Your task to perform on an android device: Empty the shopping cart on target. Add rayovac triple a to the cart on target Image 0: 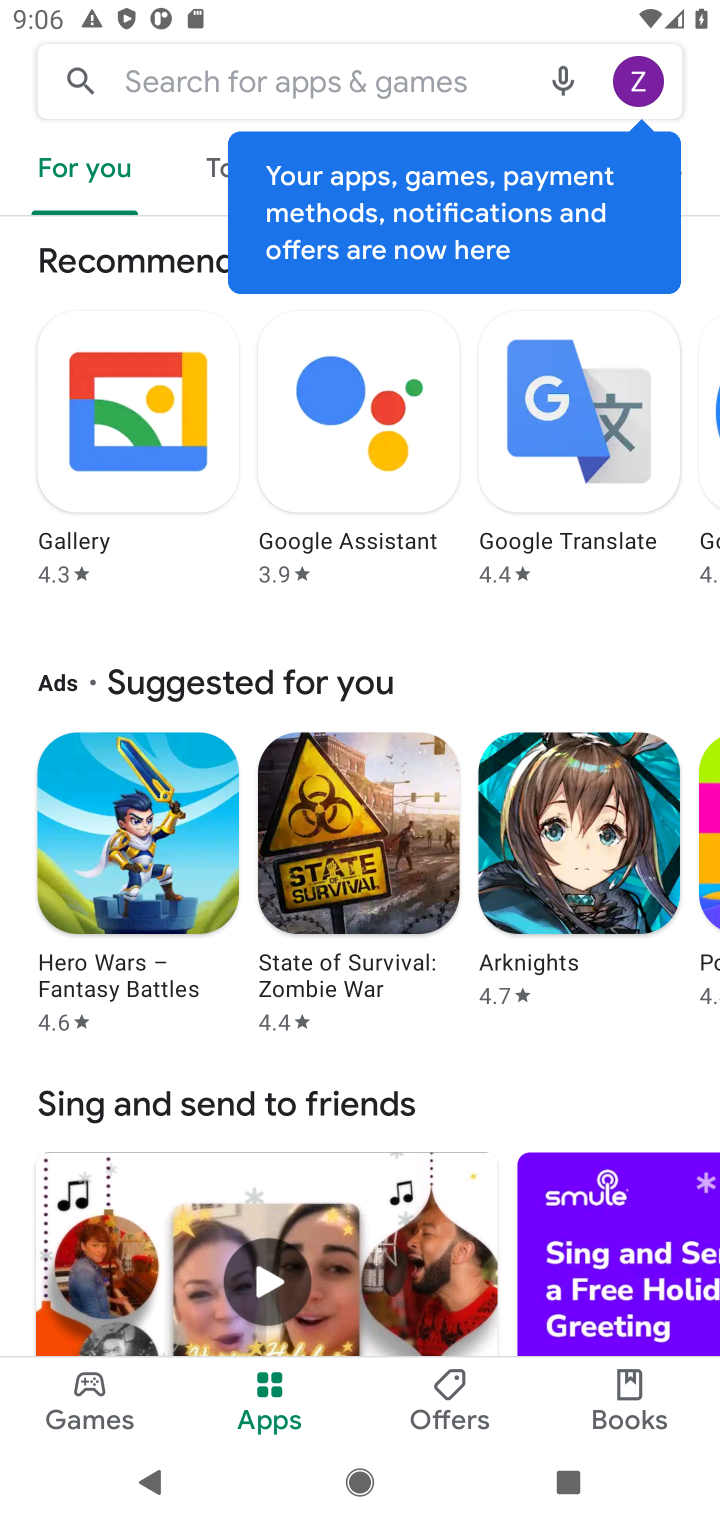
Step 0: press home button
Your task to perform on an android device: Empty the shopping cart on target. Add rayovac triple a to the cart on target Image 1: 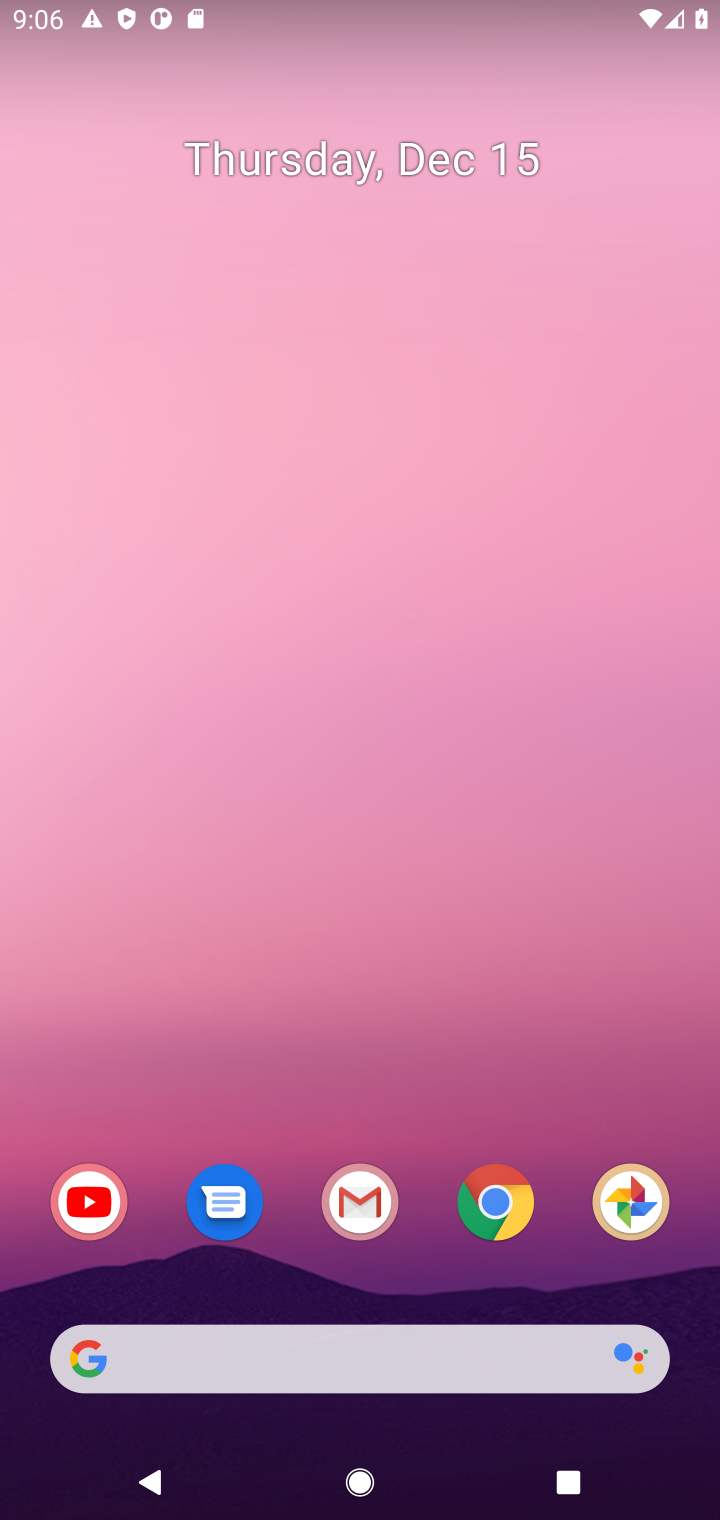
Step 1: click (487, 1205)
Your task to perform on an android device: Empty the shopping cart on target. Add rayovac triple a to the cart on target Image 2: 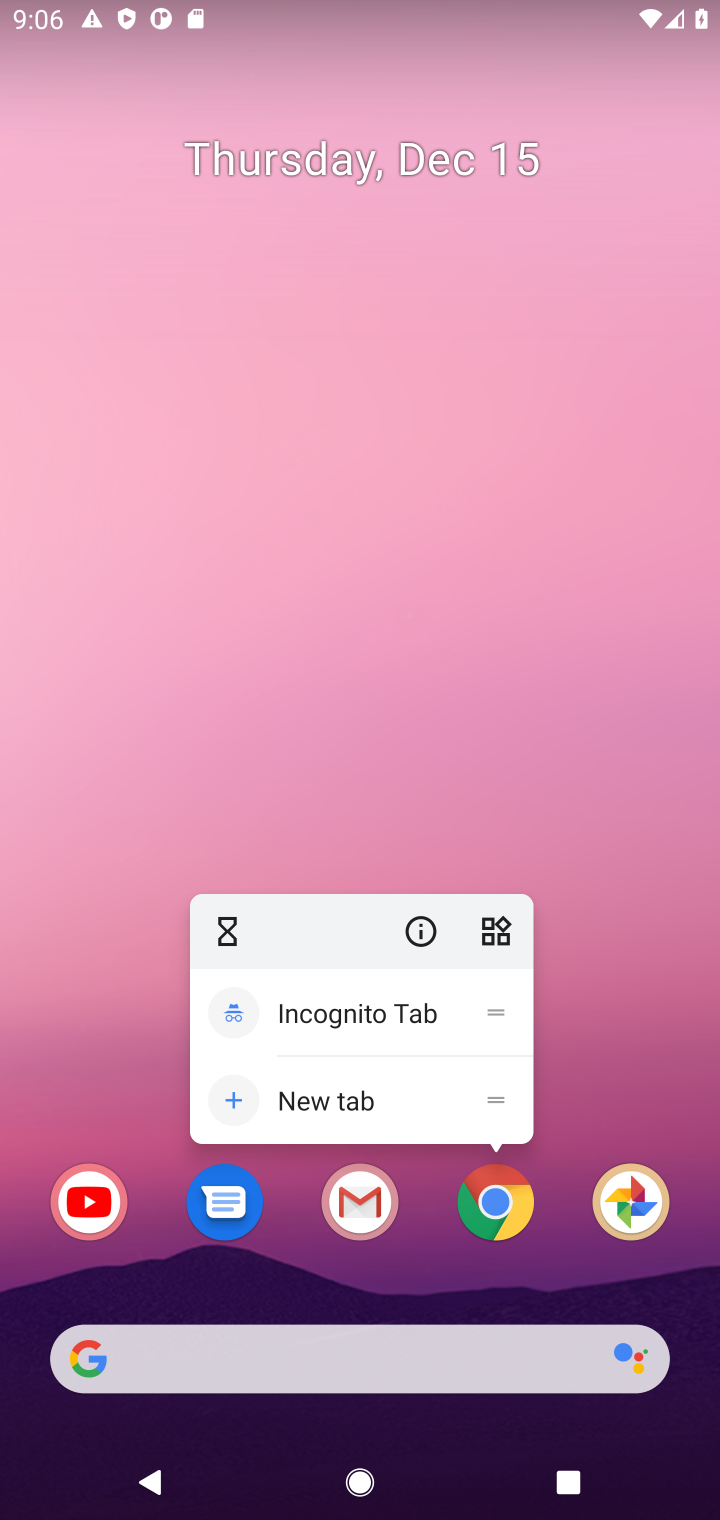
Step 2: click (498, 1205)
Your task to perform on an android device: Empty the shopping cart on target. Add rayovac triple a to the cart on target Image 3: 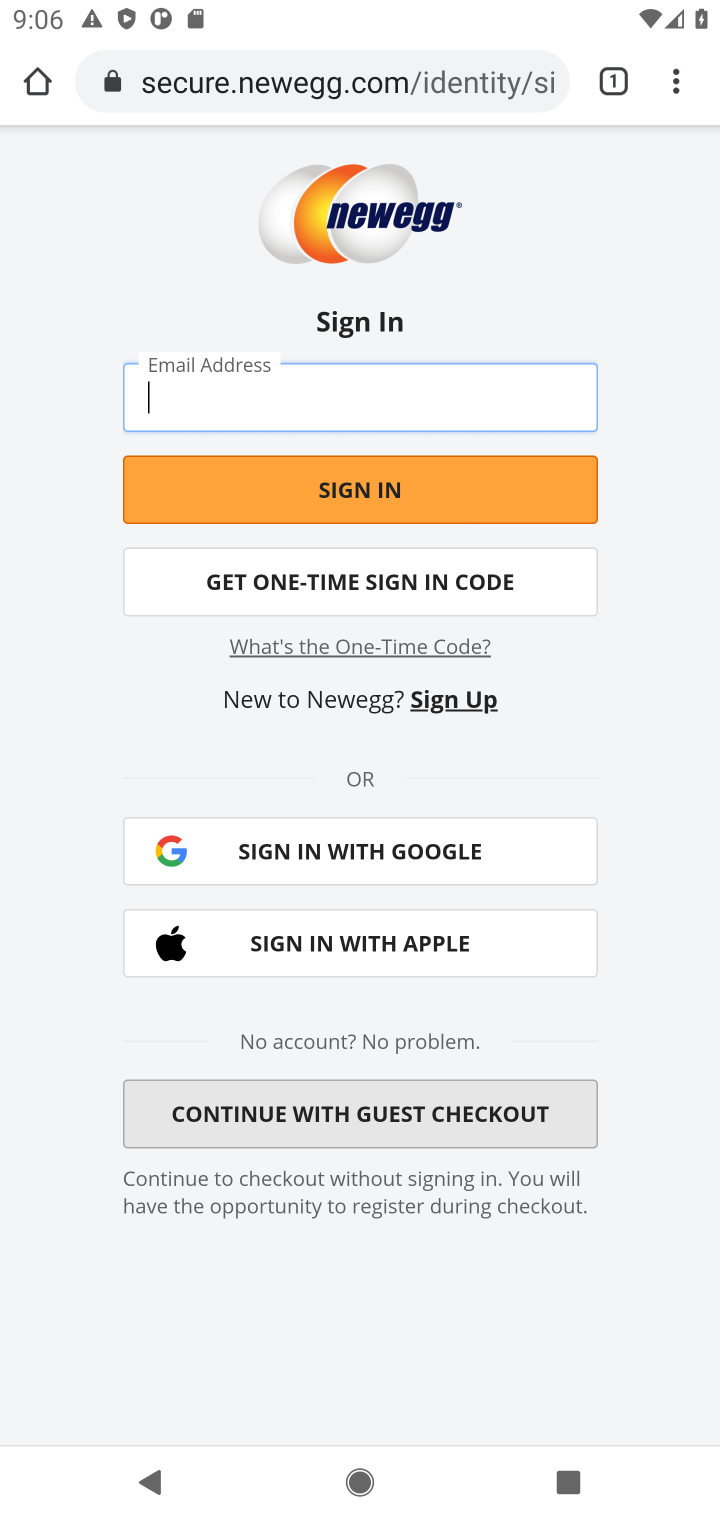
Step 3: click (331, 85)
Your task to perform on an android device: Empty the shopping cart on target. Add rayovac triple a to the cart on target Image 4: 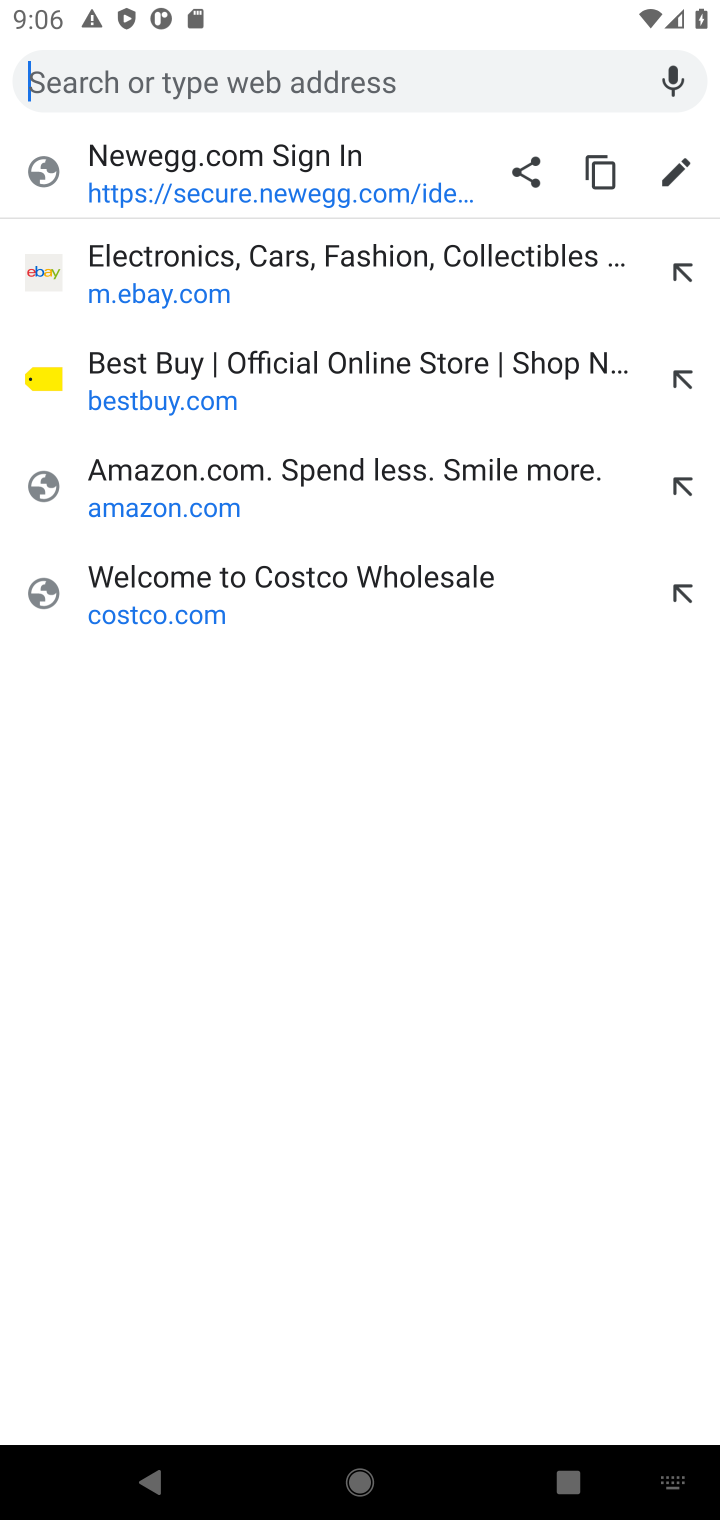
Step 4: type "target.com"
Your task to perform on an android device: Empty the shopping cart on target. Add rayovac triple a to the cart on target Image 5: 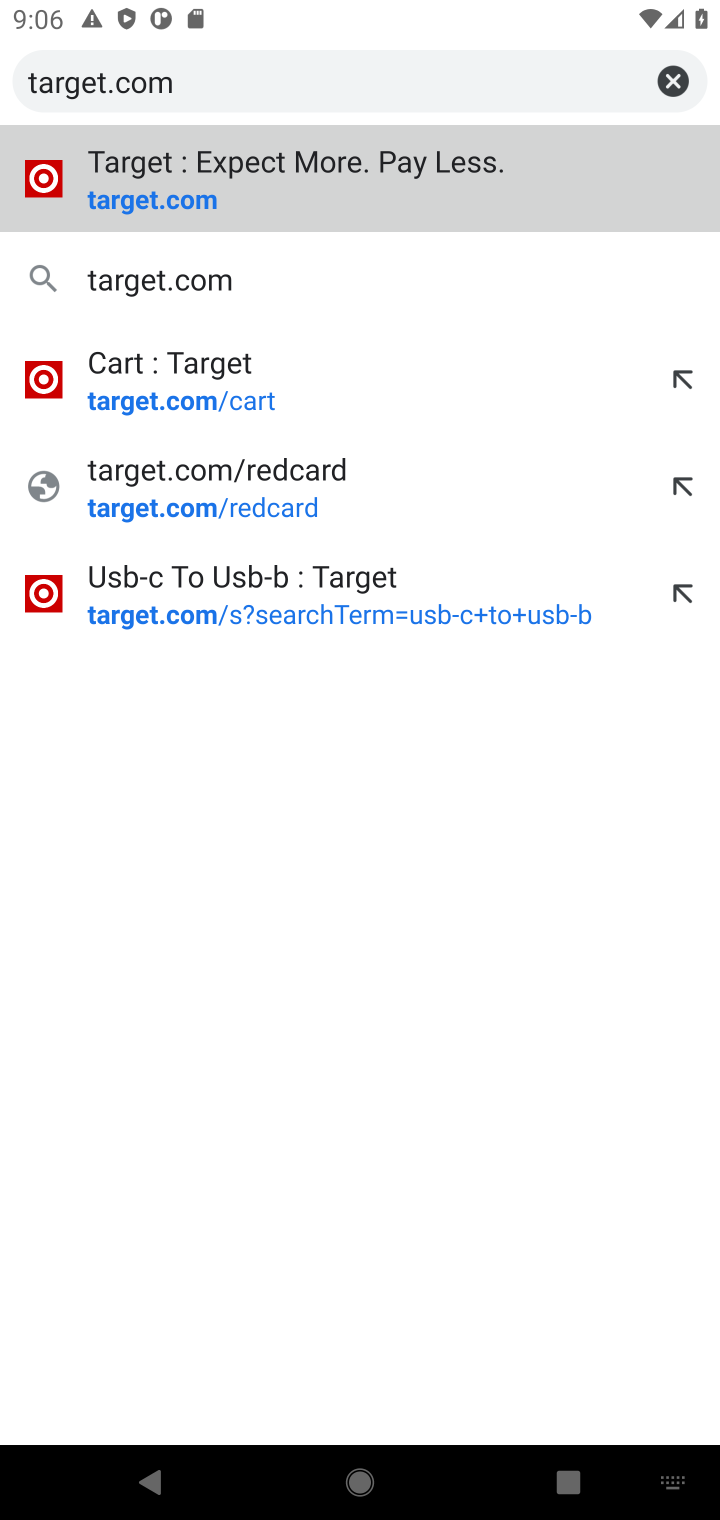
Step 5: click (126, 189)
Your task to perform on an android device: Empty the shopping cart on target. Add rayovac triple a to the cart on target Image 6: 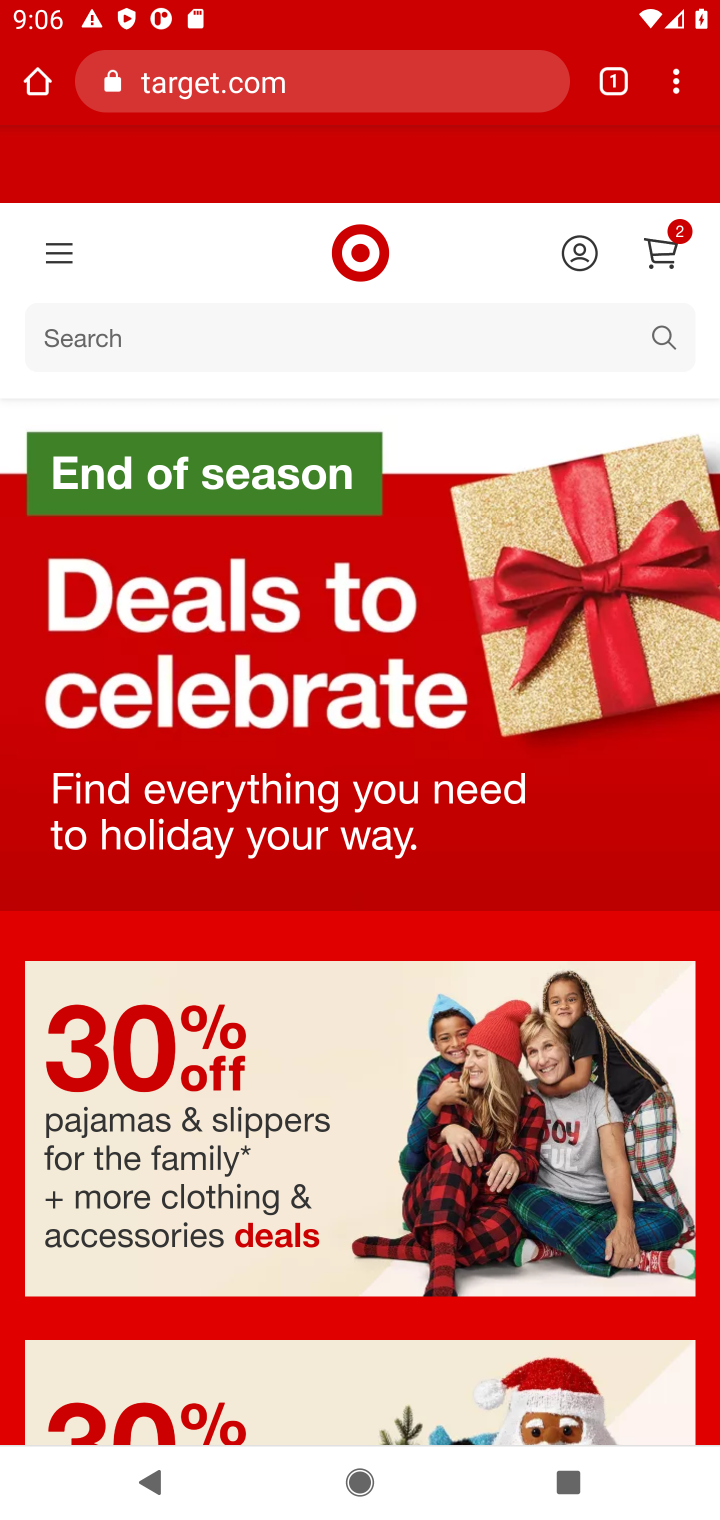
Step 6: click (655, 256)
Your task to perform on an android device: Empty the shopping cart on target. Add rayovac triple a to the cart on target Image 7: 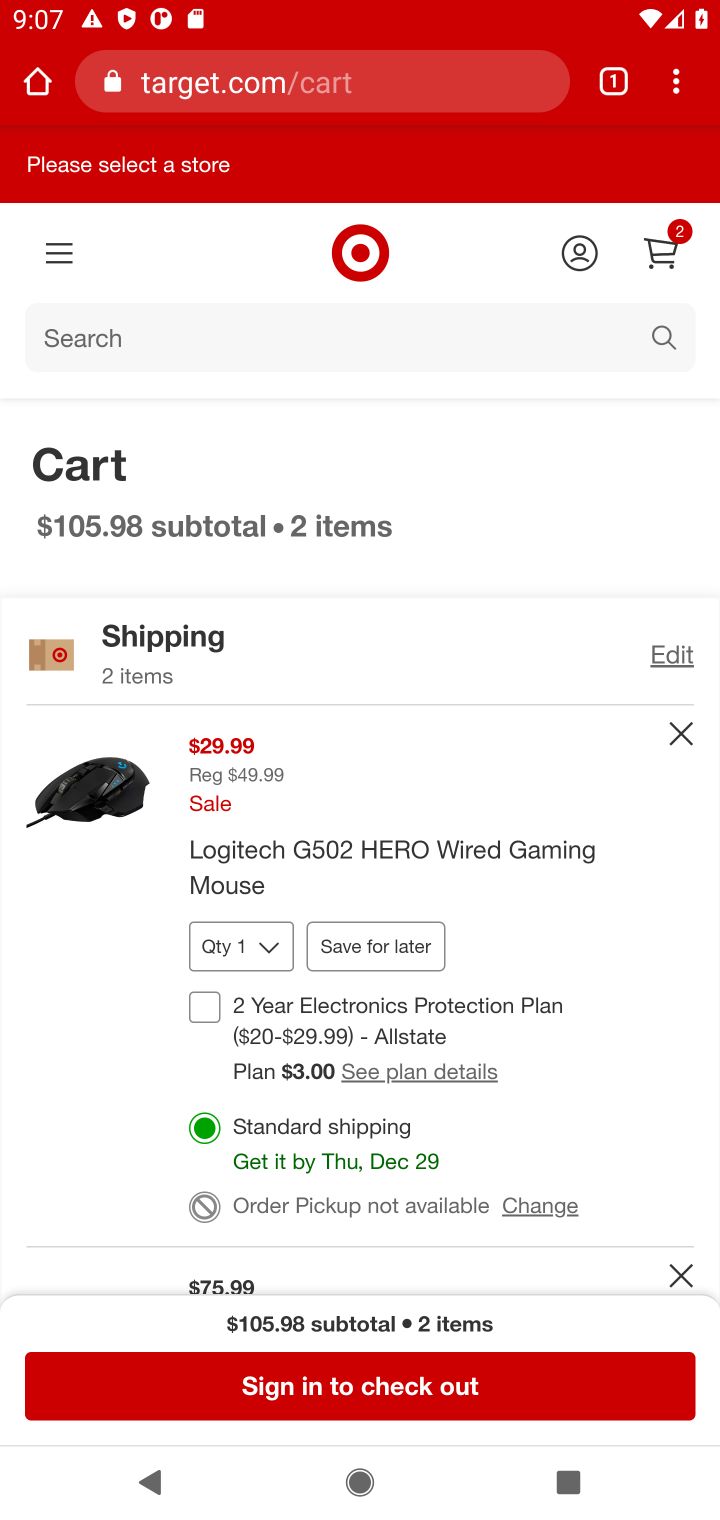
Step 7: click (684, 743)
Your task to perform on an android device: Empty the shopping cart on target. Add rayovac triple a to the cart on target Image 8: 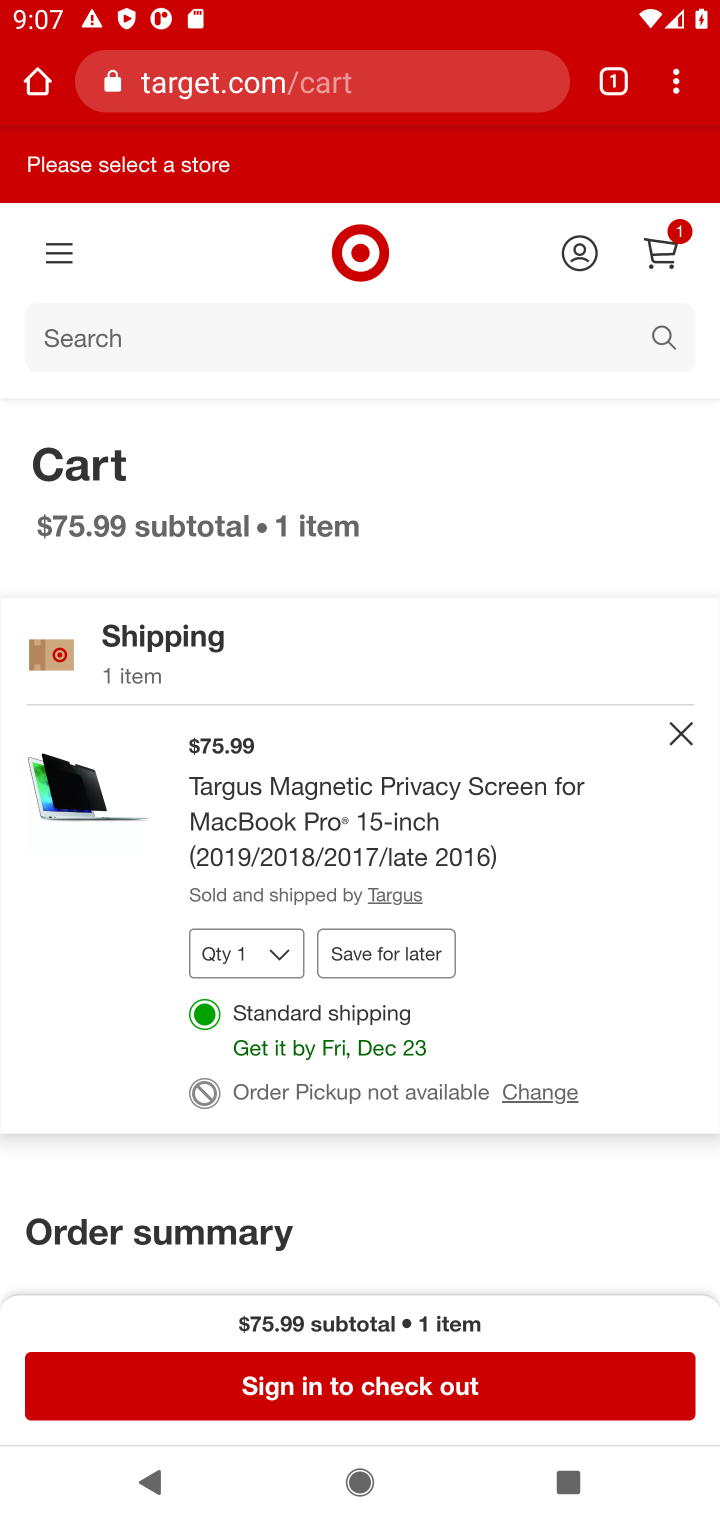
Step 8: click (675, 736)
Your task to perform on an android device: Empty the shopping cart on target. Add rayovac triple a to the cart on target Image 9: 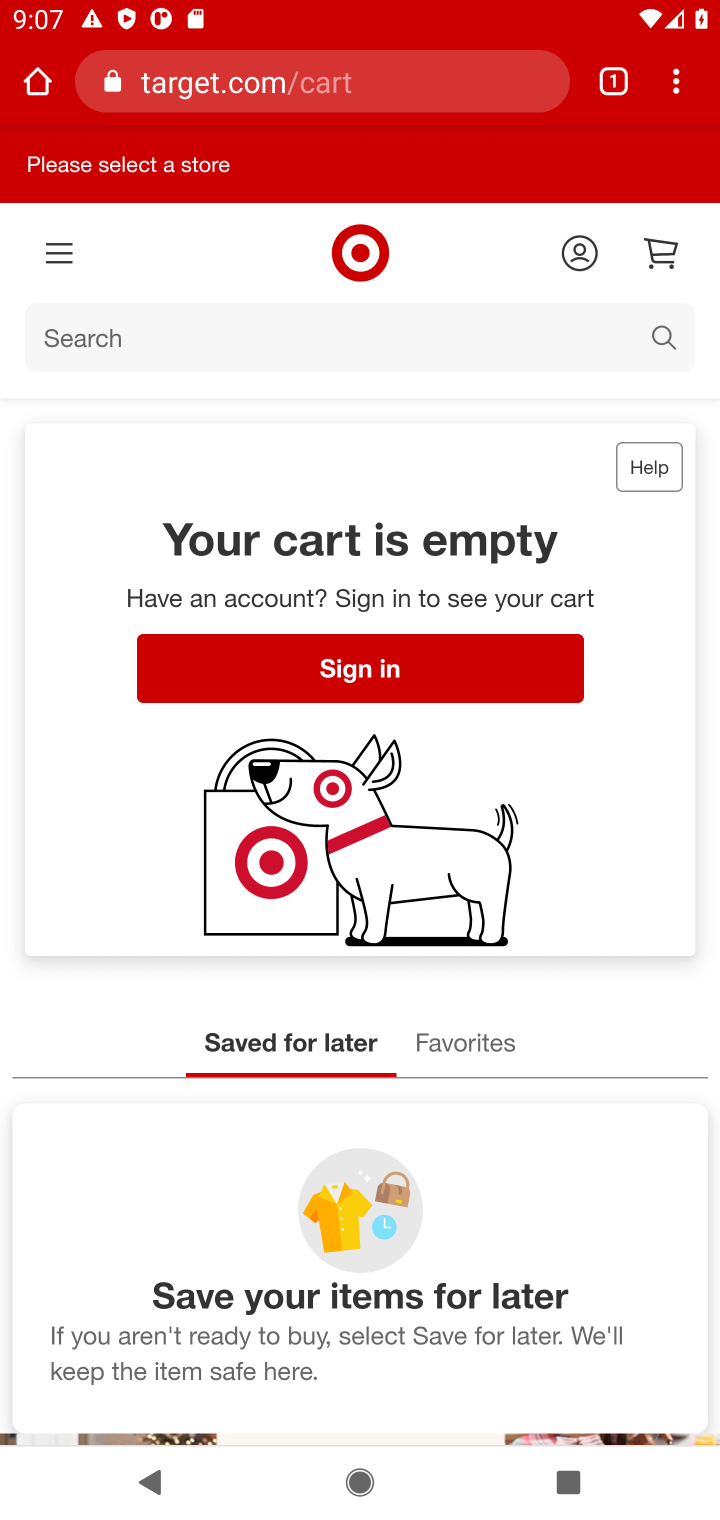
Step 9: click (107, 348)
Your task to perform on an android device: Empty the shopping cart on target. Add rayovac triple a to the cart on target Image 10: 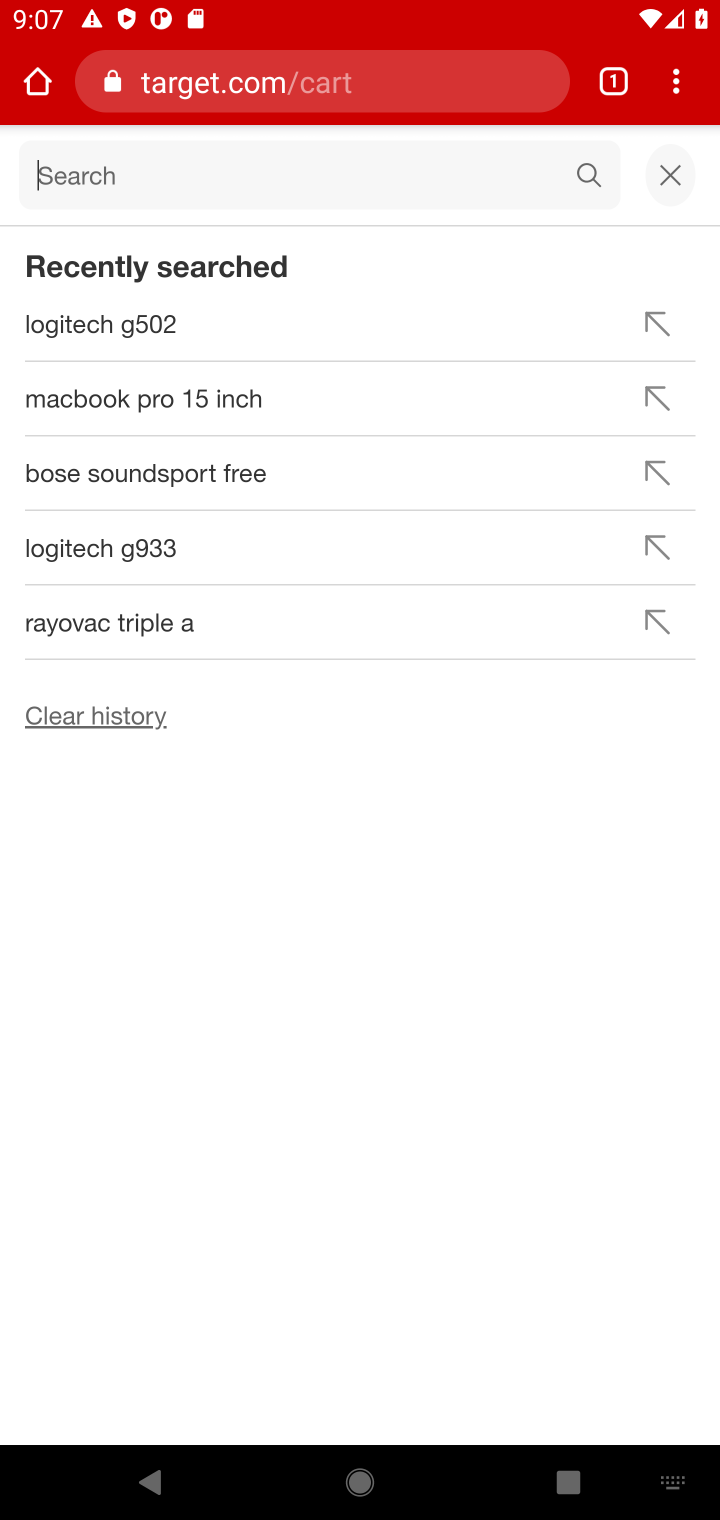
Step 10: type "rayovac triple a"
Your task to perform on an android device: Empty the shopping cart on target. Add rayovac triple a to the cart on target Image 11: 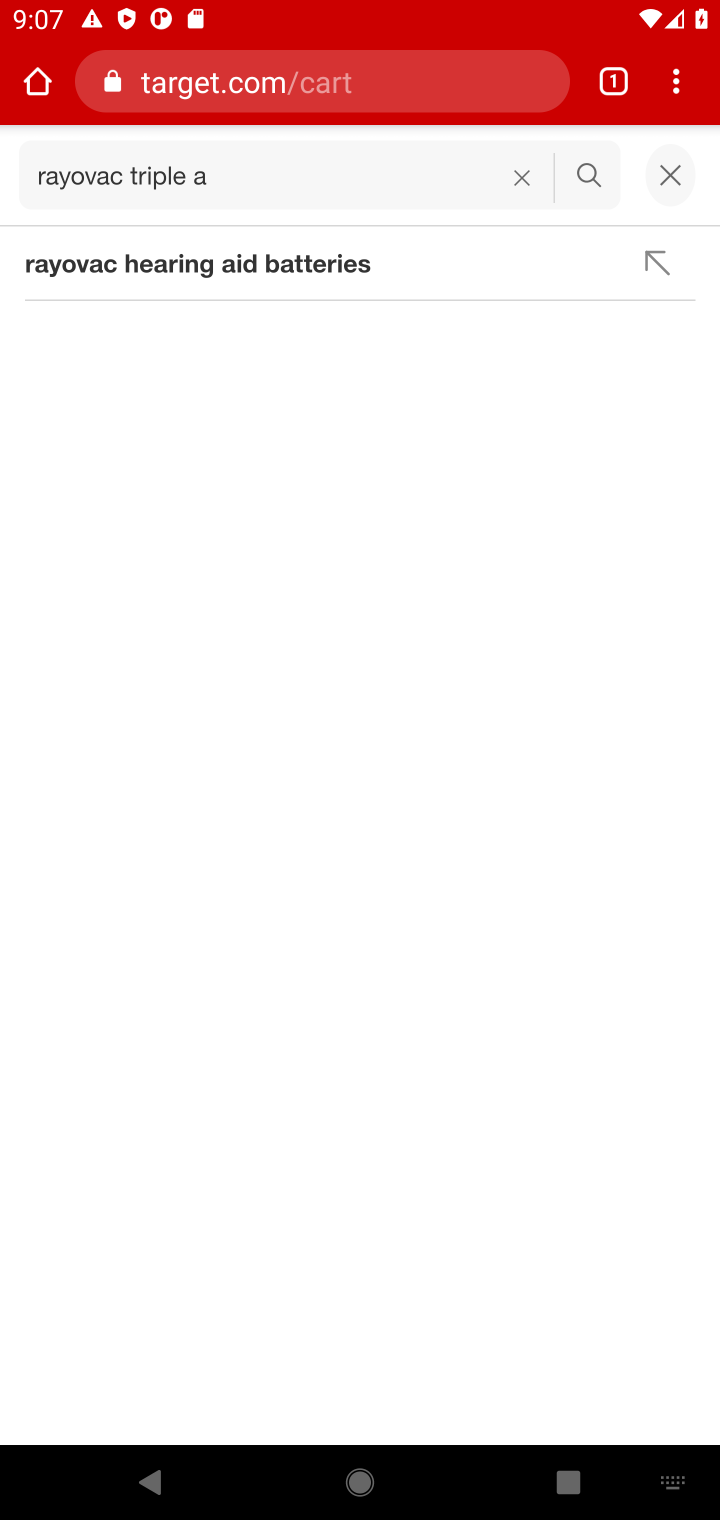
Step 11: click (581, 173)
Your task to perform on an android device: Empty the shopping cart on target. Add rayovac triple a to the cart on target Image 12: 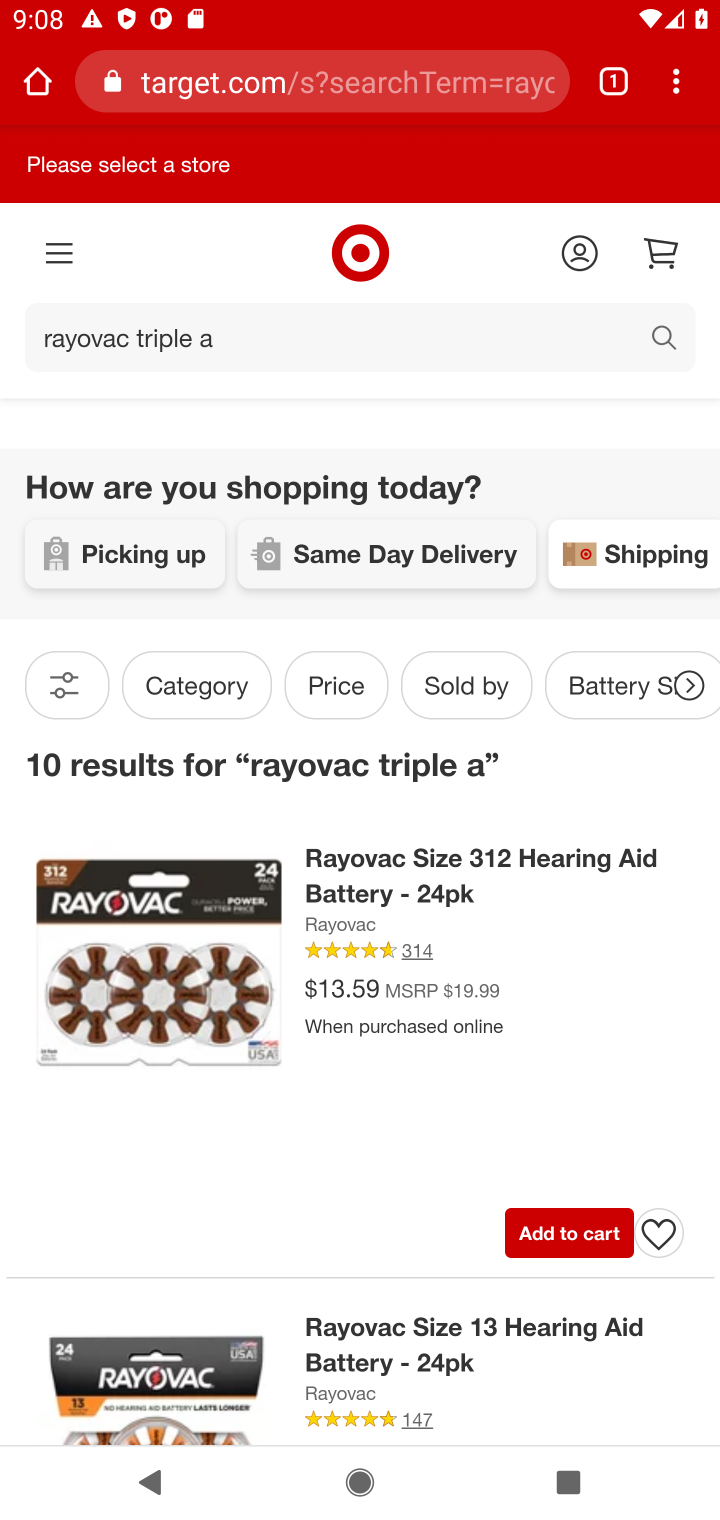
Step 12: task complete